Your task to perform on an android device: check google app version Image 0: 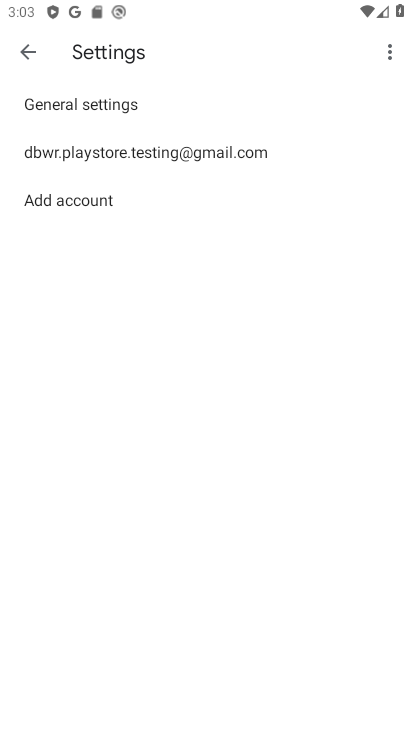
Step 0: press home button
Your task to perform on an android device: check google app version Image 1: 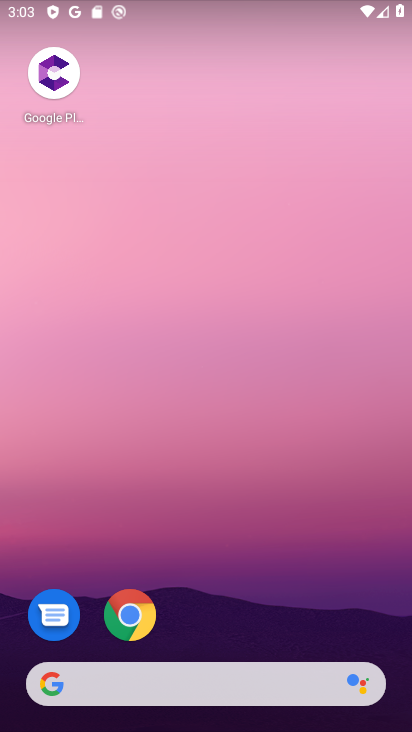
Step 1: click (56, 683)
Your task to perform on an android device: check google app version Image 2: 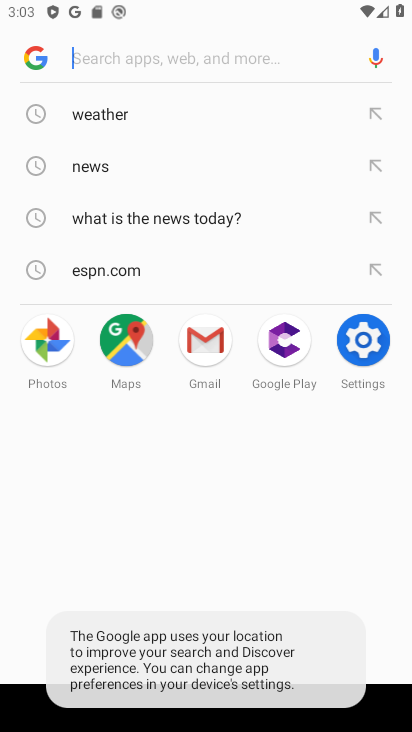
Step 2: click (32, 66)
Your task to perform on an android device: check google app version Image 3: 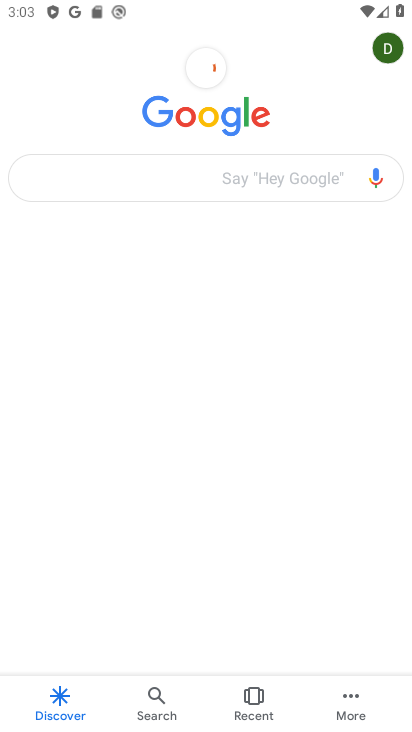
Step 3: click (351, 721)
Your task to perform on an android device: check google app version Image 4: 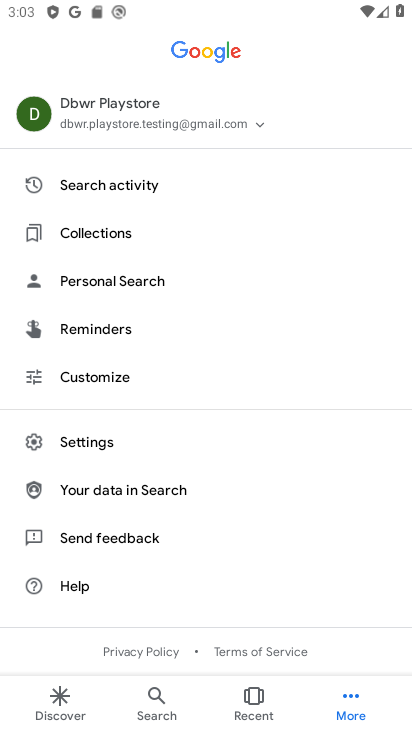
Step 4: click (88, 438)
Your task to perform on an android device: check google app version Image 5: 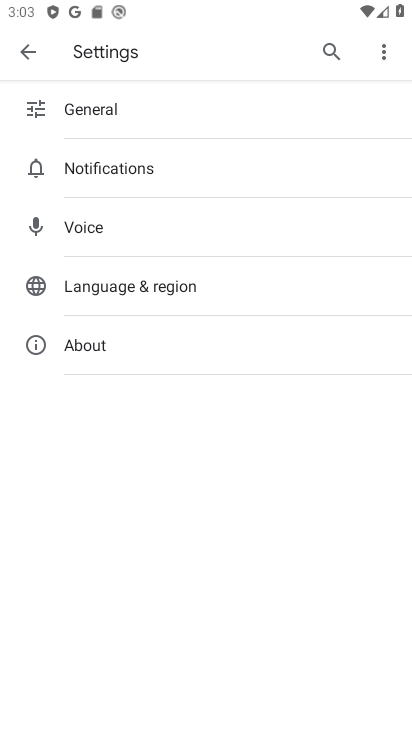
Step 5: click (96, 337)
Your task to perform on an android device: check google app version Image 6: 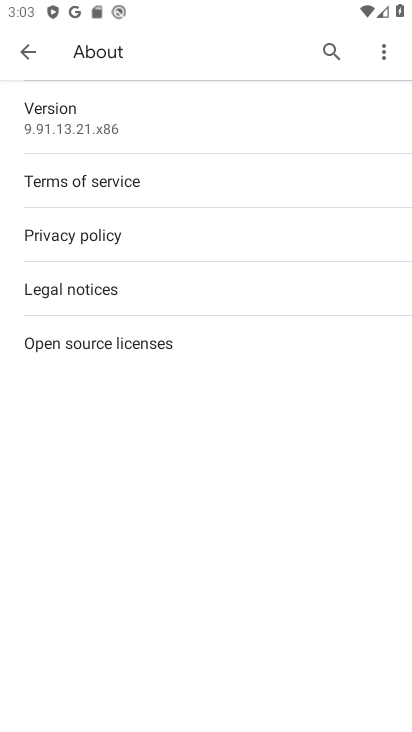
Step 6: task complete